Your task to perform on an android device: Search for Mexican restaurants on Maps Image 0: 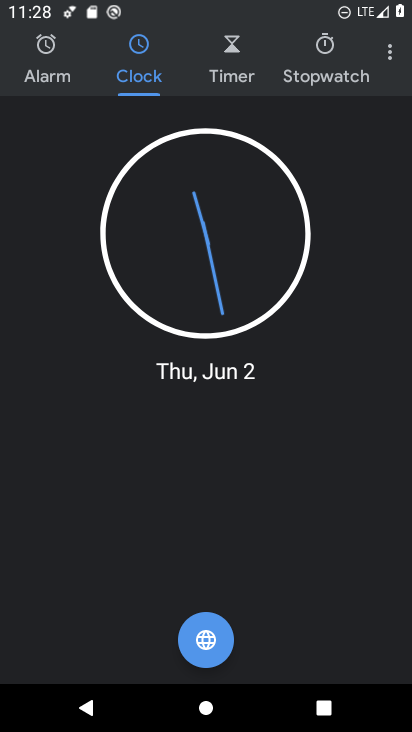
Step 0: press home button
Your task to perform on an android device: Search for Mexican restaurants on Maps Image 1: 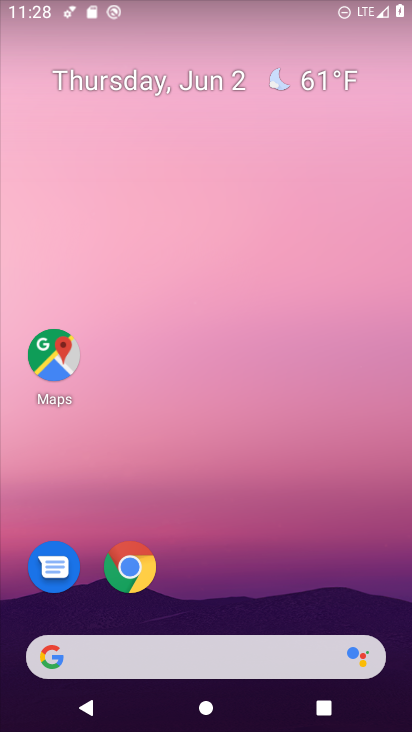
Step 1: click (57, 366)
Your task to perform on an android device: Search for Mexican restaurants on Maps Image 2: 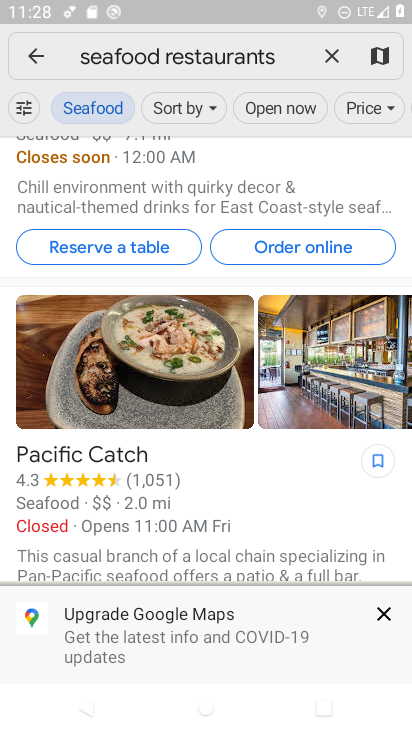
Step 2: click (252, 57)
Your task to perform on an android device: Search for Mexican restaurants on Maps Image 3: 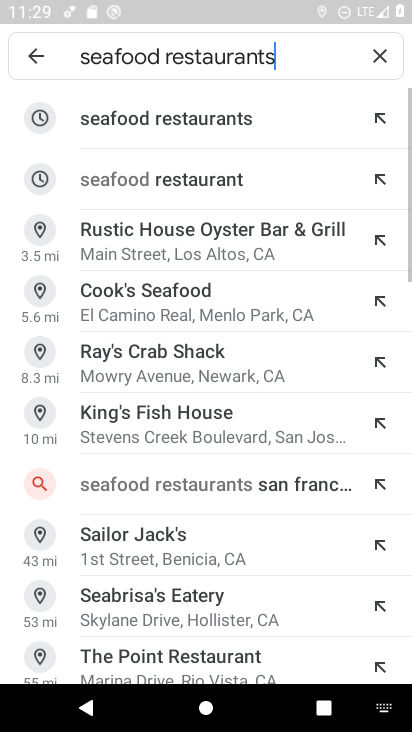
Step 3: click (376, 58)
Your task to perform on an android device: Search for Mexican restaurants on Maps Image 4: 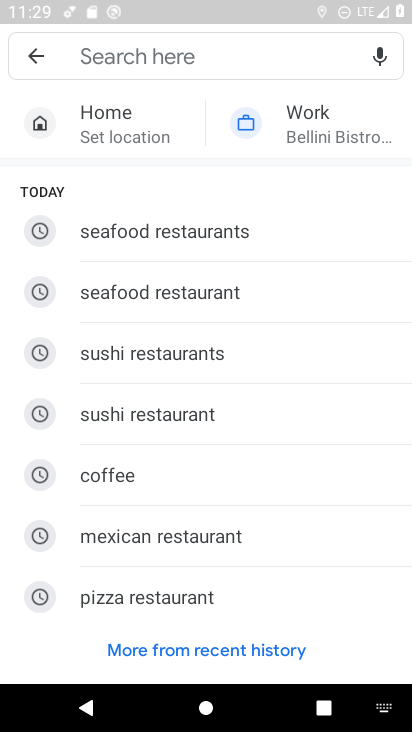
Step 4: type "Mexican restaurants"
Your task to perform on an android device: Search for Mexican restaurants on Maps Image 5: 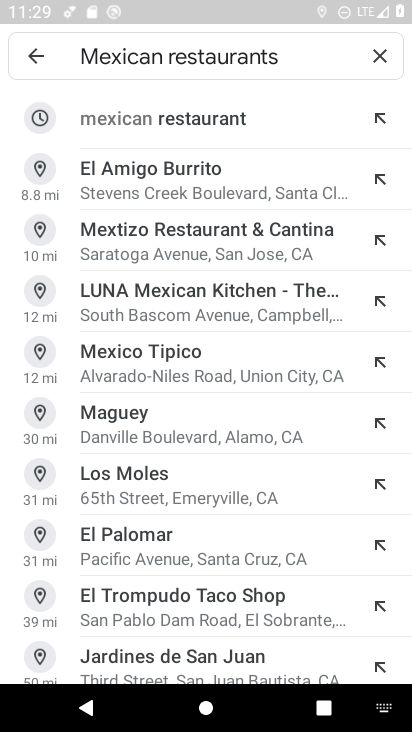
Step 5: press enter
Your task to perform on an android device: Search for Mexican restaurants on Maps Image 6: 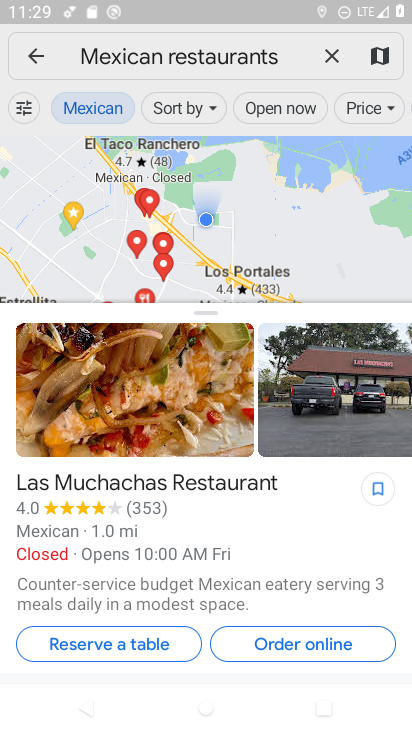
Step 6: task complete